Your task to perform on an android device: Go to ESPN.com Image 0: 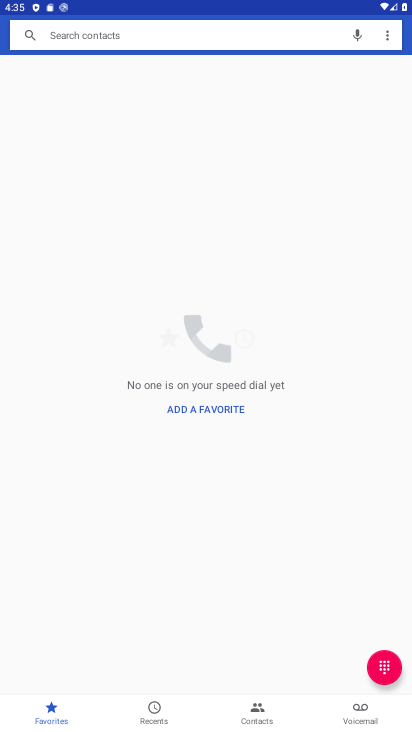
Step 0: press home button
Your task to perform on an android device: Go to ESPN.com Image 1: 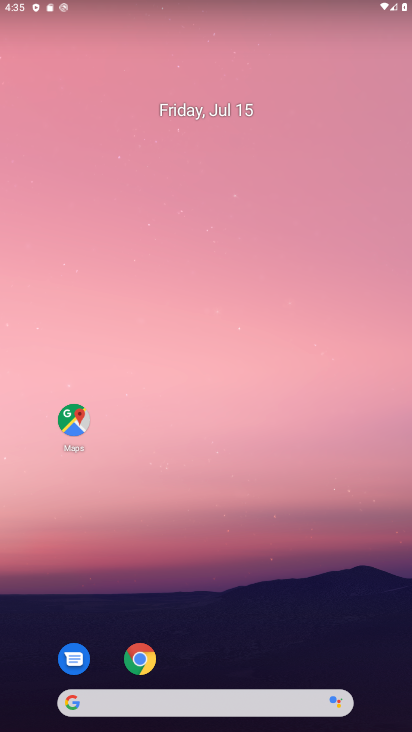
Step 1: click (148, 659)
Your task to perform on an android device: Go to ESPN.com Image 2: 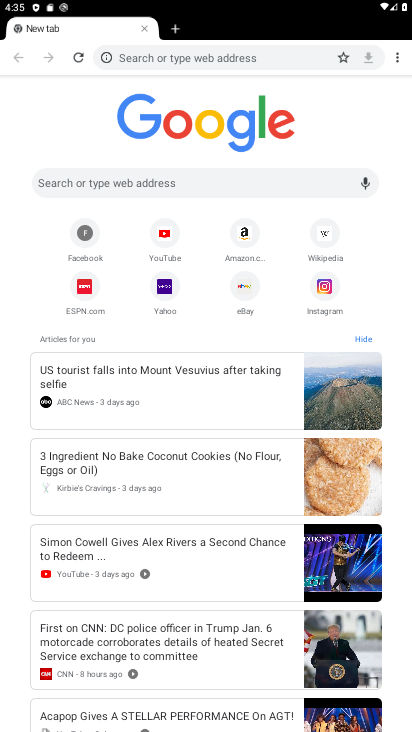
Step 2: click (96, 294)
Your task to perform on an android device: Go to ESPN.com Image 3: 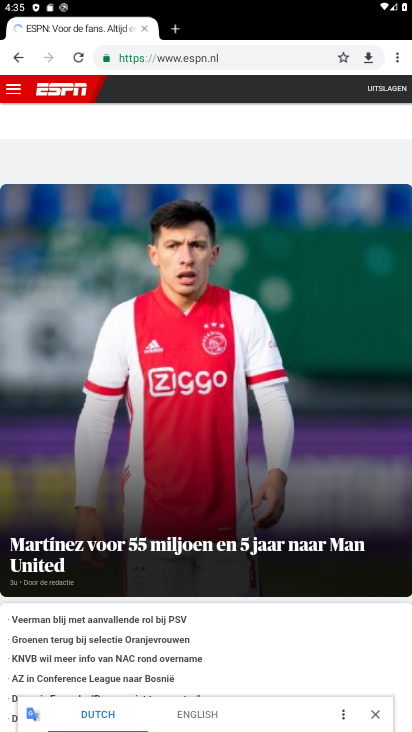
Step 3: task complete